Your task to perform on an android device: Go to Amazon Image 0: 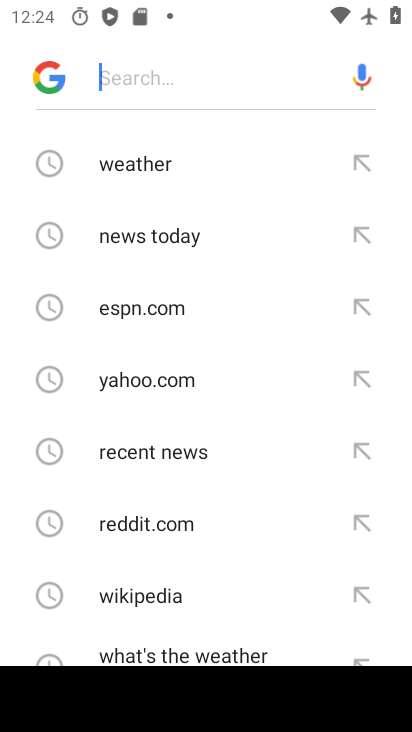
Step 0: press home button
Your task to perform on an android device: Go to Amazon Image 1: 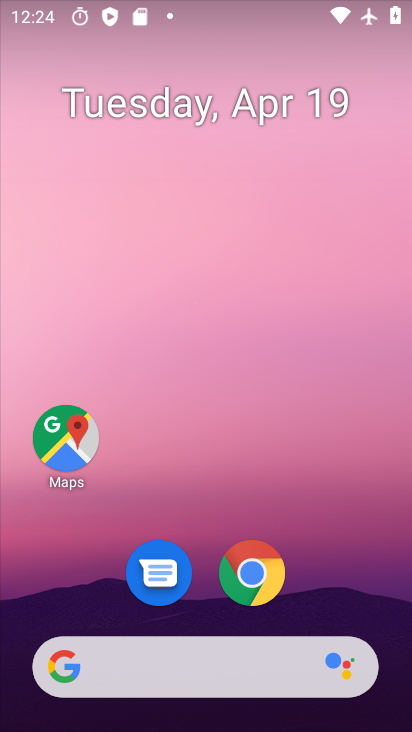
Step 1: click (266, 578)
Your task to perform on an android device: Go to Amazon Image 2: 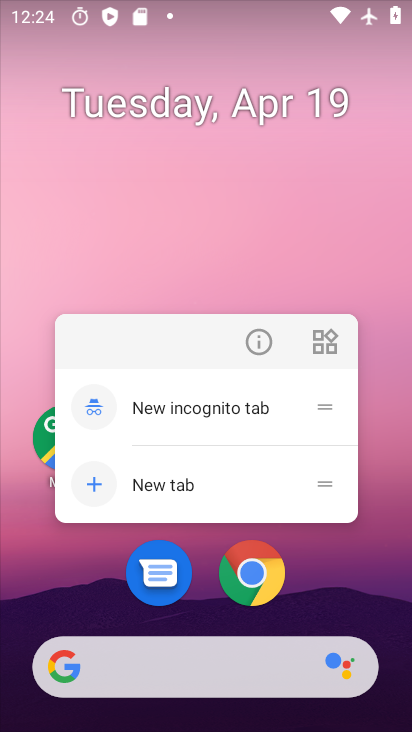
Step 2: click (235, 571)
Your task to perform on an android device: Go to Amazon Image 3: 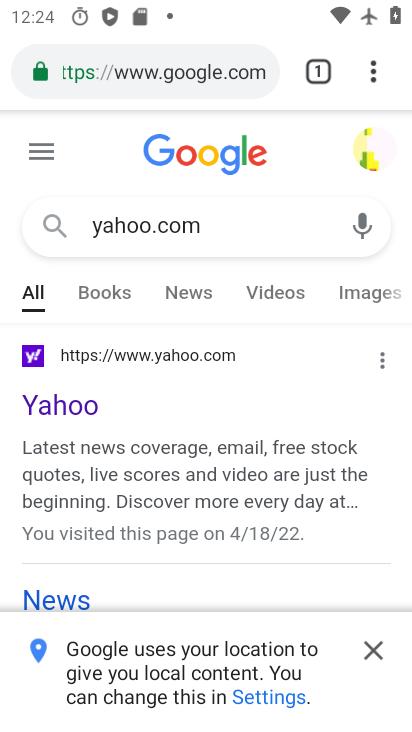
Step 3: click (177, 69)
Your task to perform on an android device: Go to Amazon Image 4: 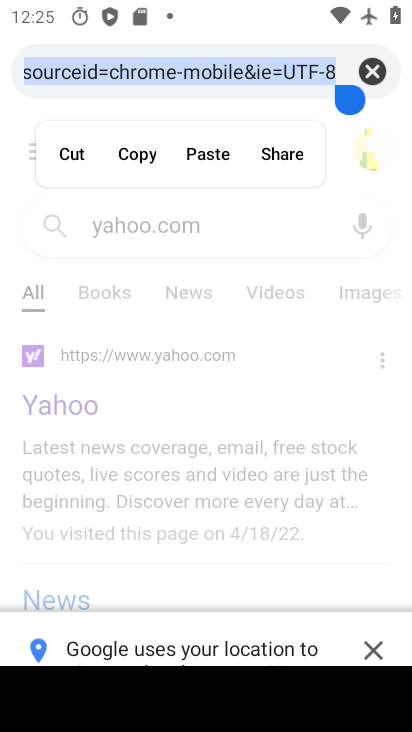
Step 4: type "amazon"
Your task to perform on an android device: Go to Amazon Image 5: 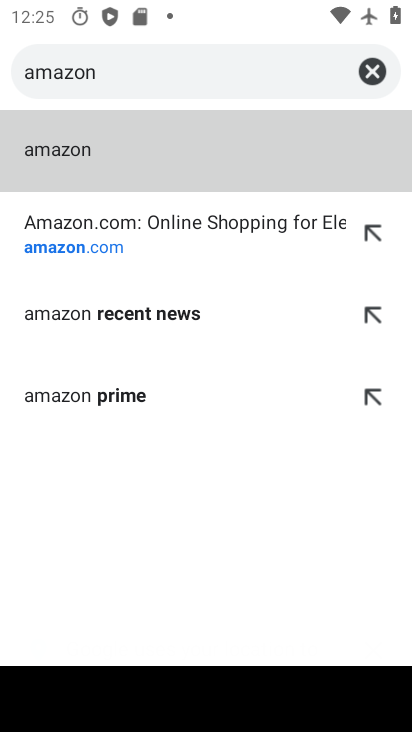
Step 5: click (98, 226)
Your task to perform on an android device: Go to Amazon Image 6: 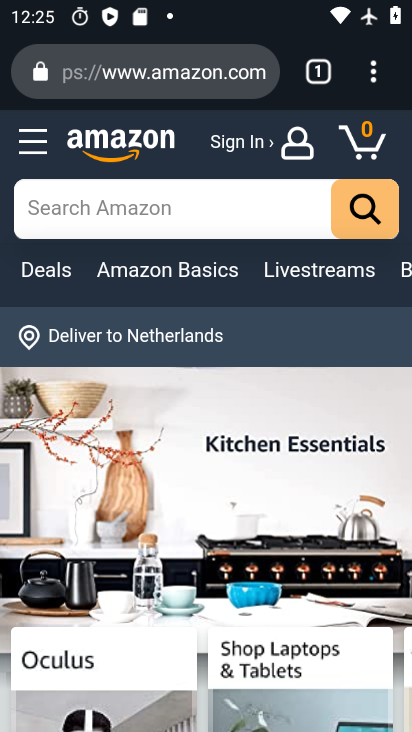
Step 6: task complete